Your task to perform on an android device: What is the capital of China? Image 0: 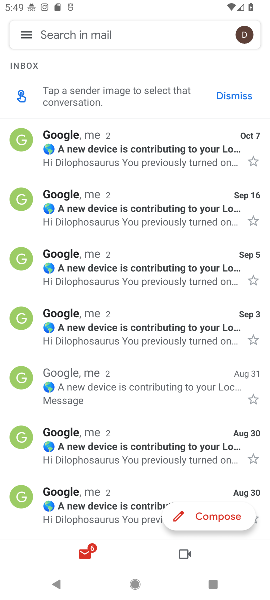
Step 0: press home button
Your task to perform on an android device: What is the capital of China? Image 1: 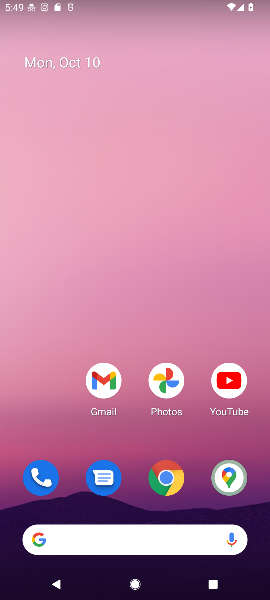
Step 1: click (165, 477)
Your task to perform on an android device: What is the capital of China? Image 2: 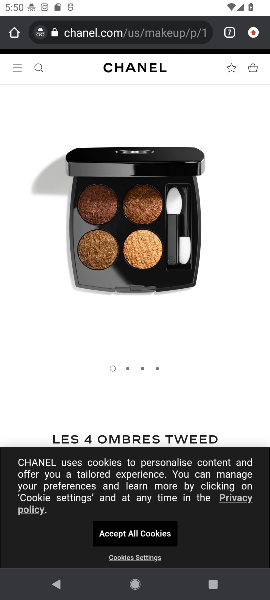
Step 2: click (135, 30)
Your task to perform on an android device: What is the capital of China? Image 3: 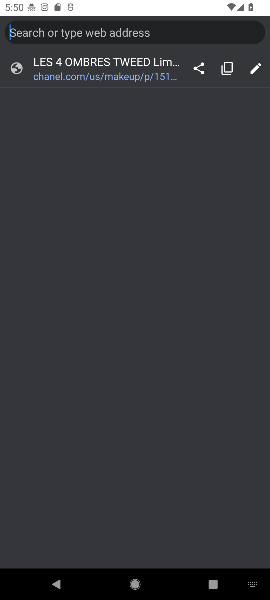
Step 3: type "What is the capital of China?"
Your task to perform on an android device: What is the capital of China? Image 4: 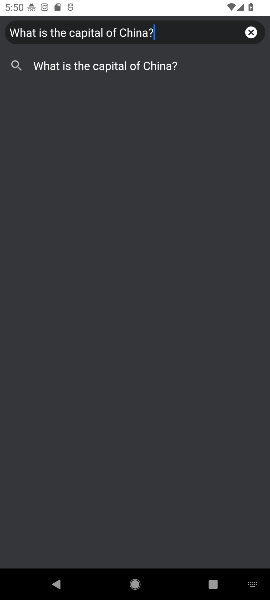
Step 4: click (175, 76)
Your task to perform on an android device: What is the capital of China? Image 5: 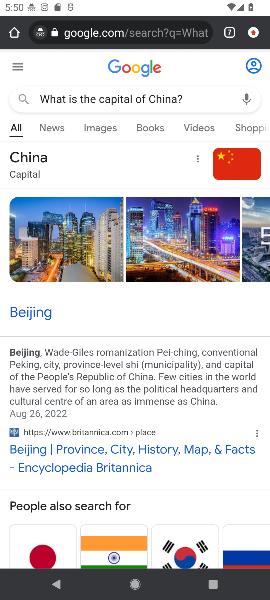
Step 5: task complete